Your task to perform on an android device: change timer sound Image 0: 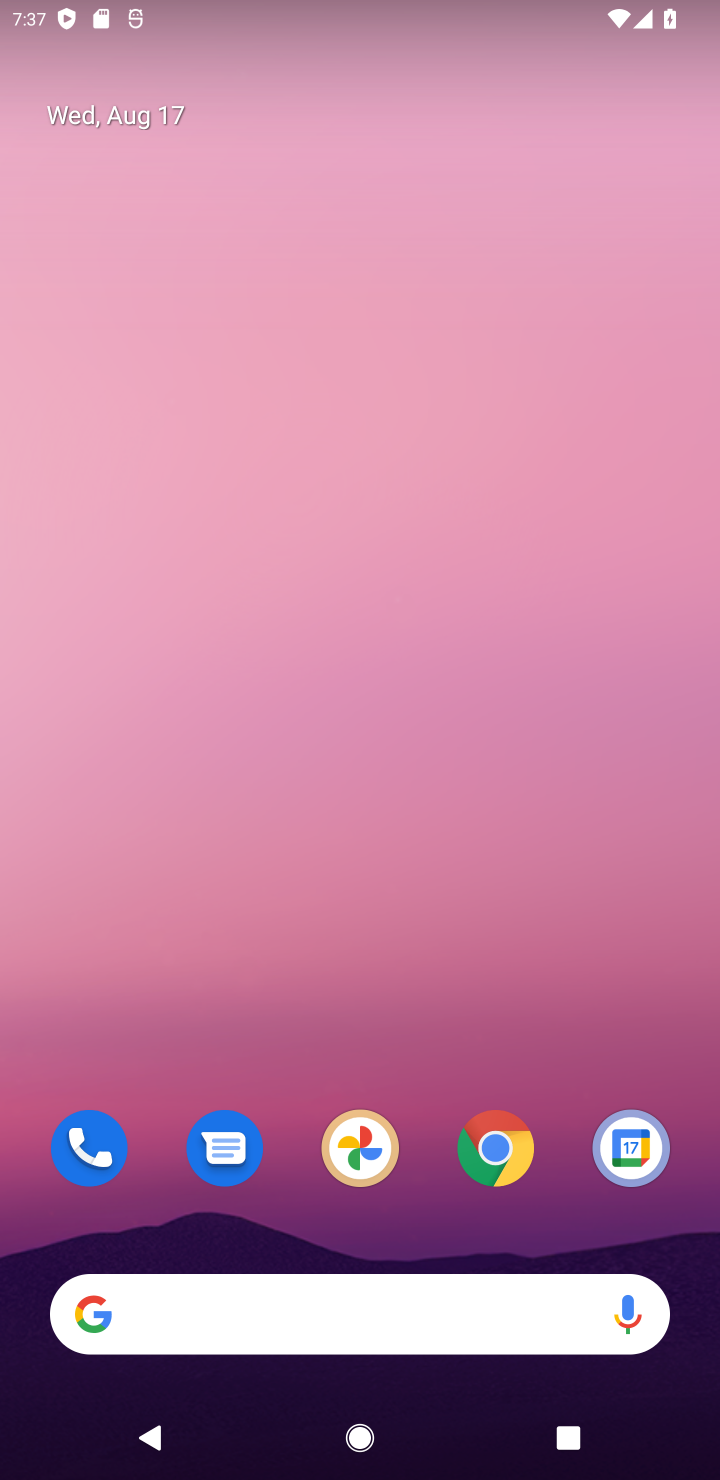
Step 0: drag from (350, 766) to (398, 145)
Your task to perform on an android device: change timer sound Image 1: 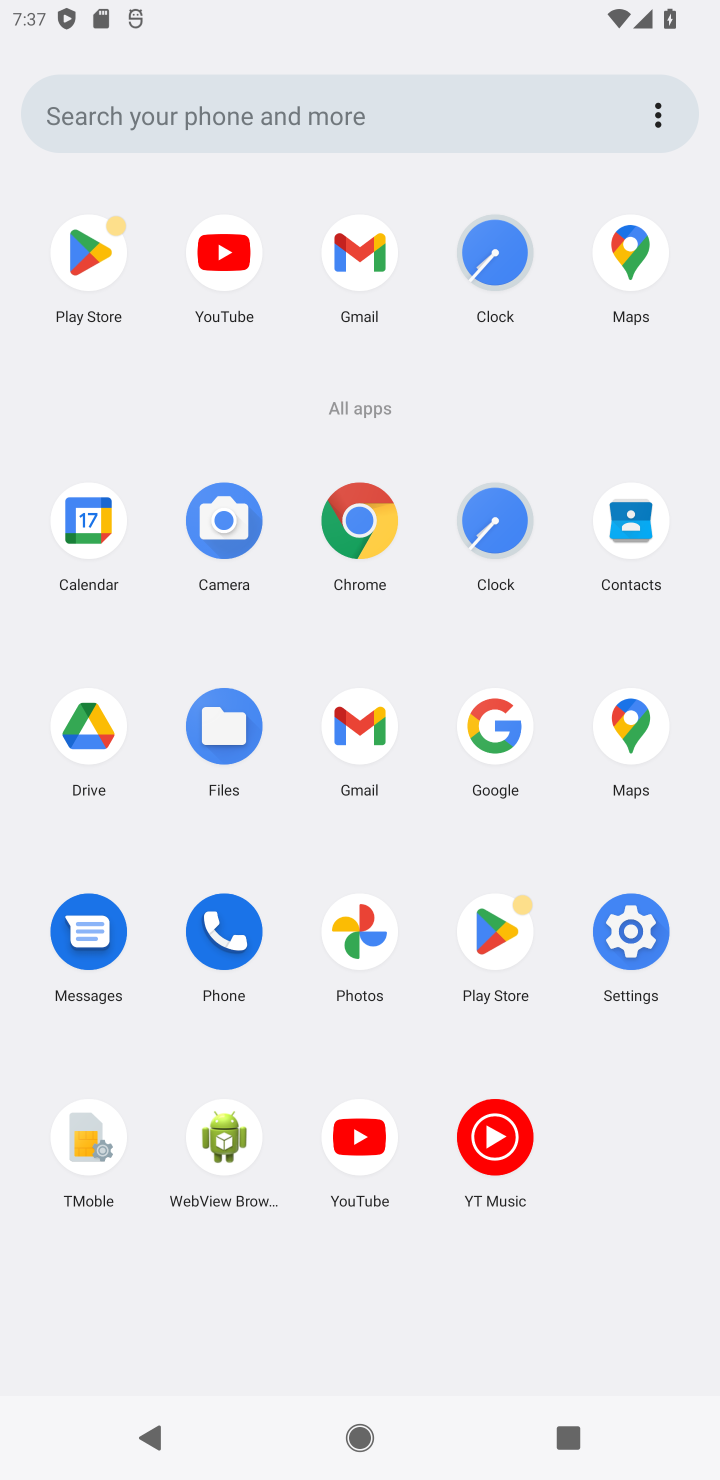
Step 1: click (494, 256)
Your task to perform on an android device: change timer sound Image 2: 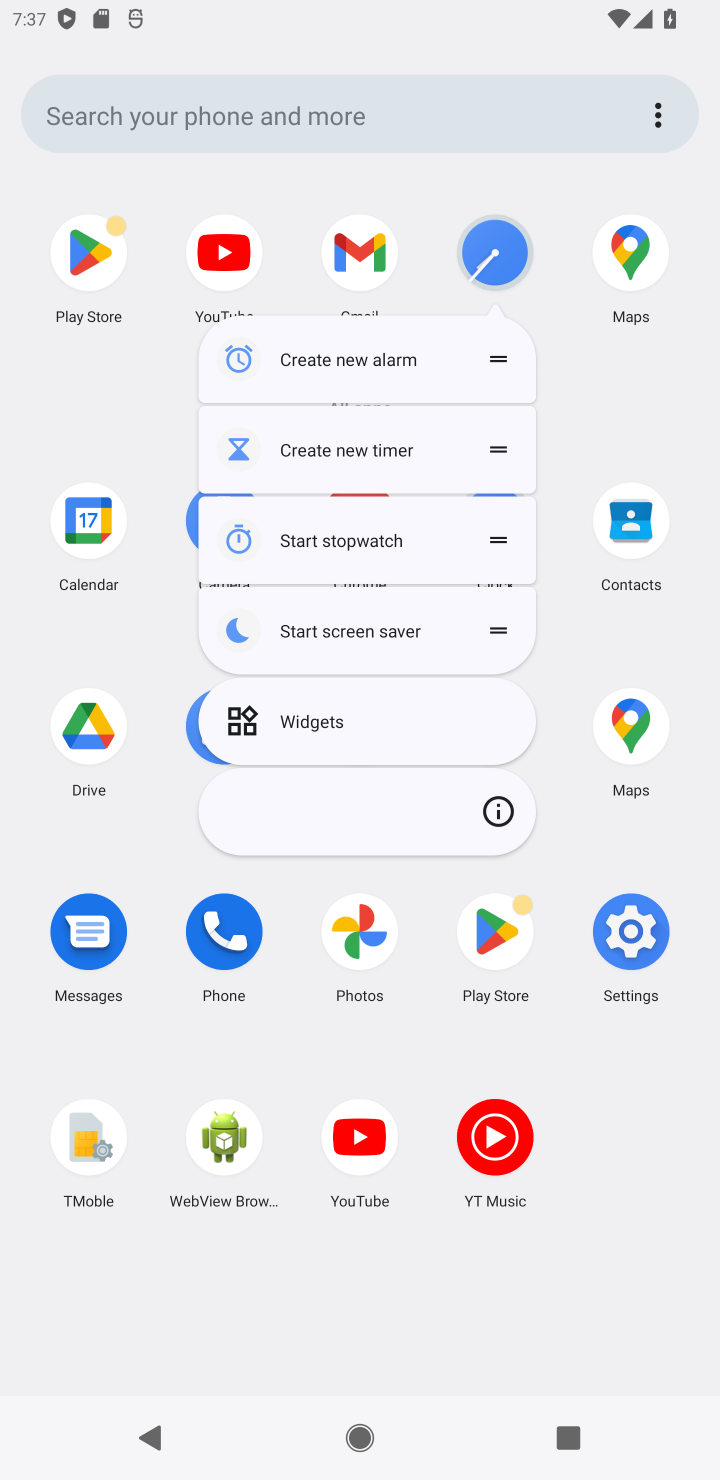
Step 2: click (497, 254)
Your task to perform on an android device: change timer sound Image 3: 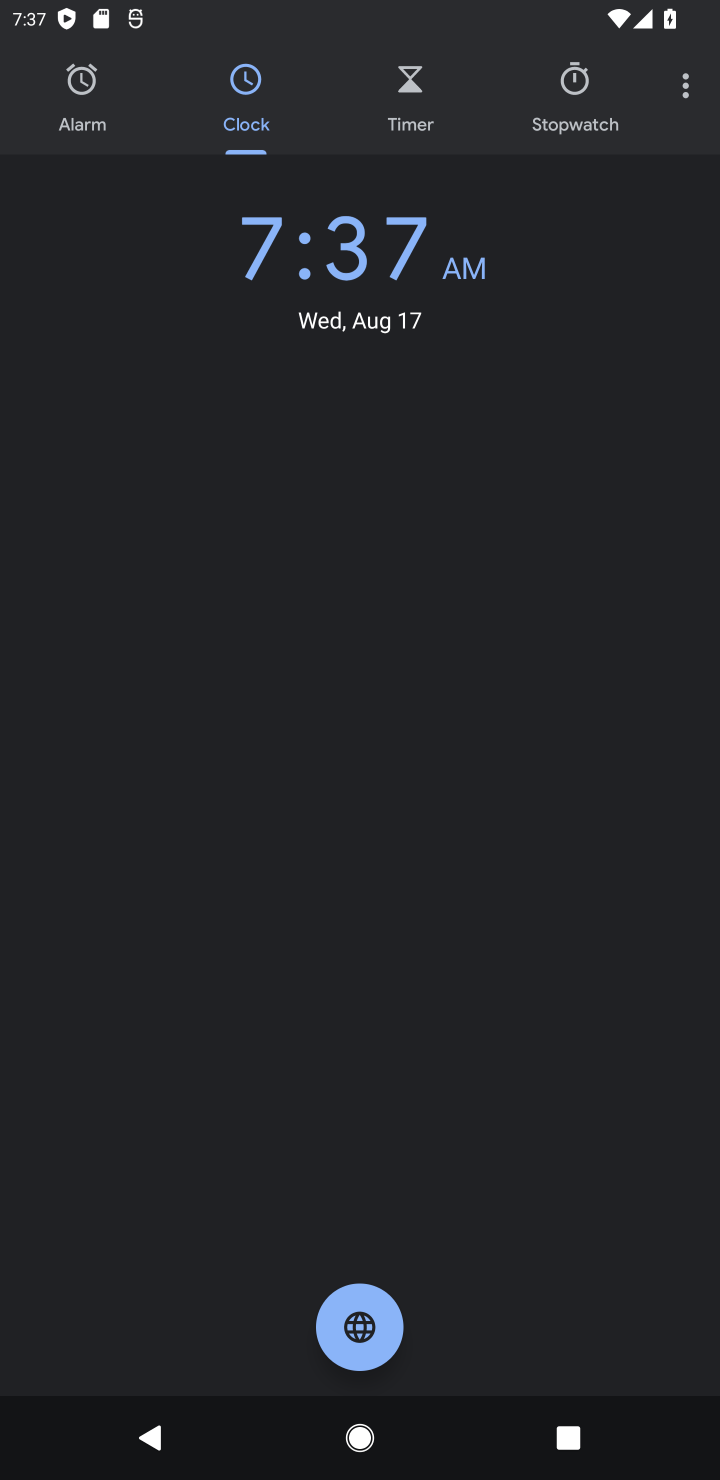
Step 3: click (668, 104)
Your task to perform on an android device: change timer sound Image 4: 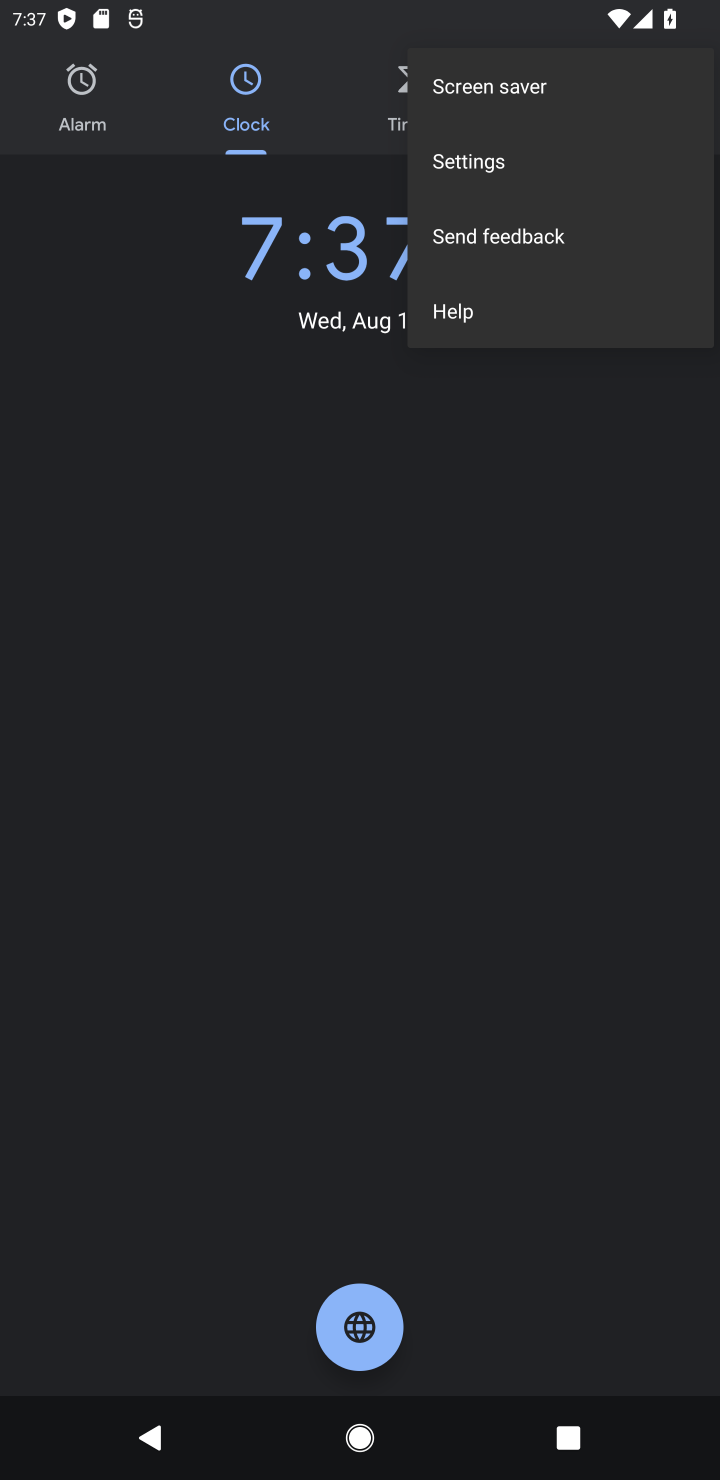
Step 4: click (455, 162)
Your task to perform on an android device: change timer sound Image 5: 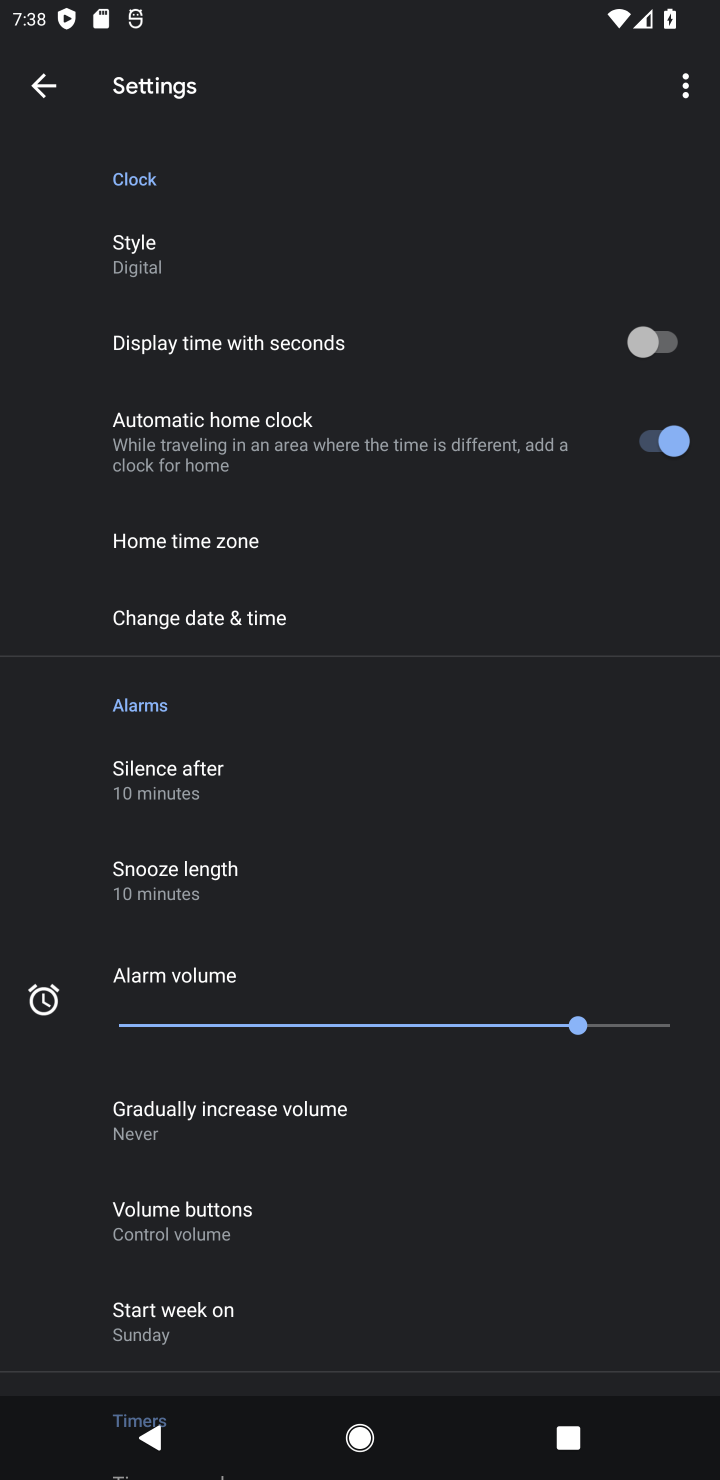
Step 5: drag from (192, 1256) to (188, 601)
Your task to perform on an android device: change timer sound Image 6: 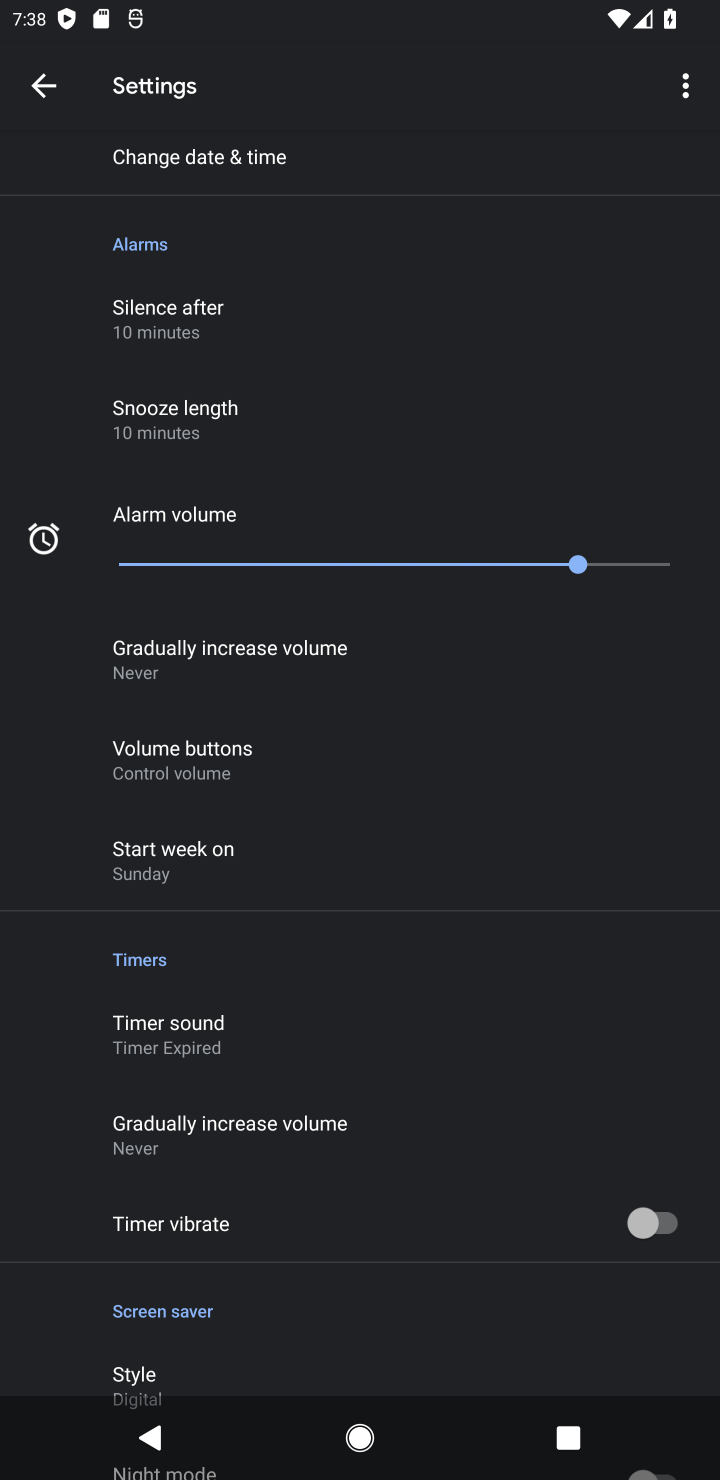
Step 6: drag from (188, 1383) to (184, 729)
Your task to perform on an android device: change timer sound Image 7: 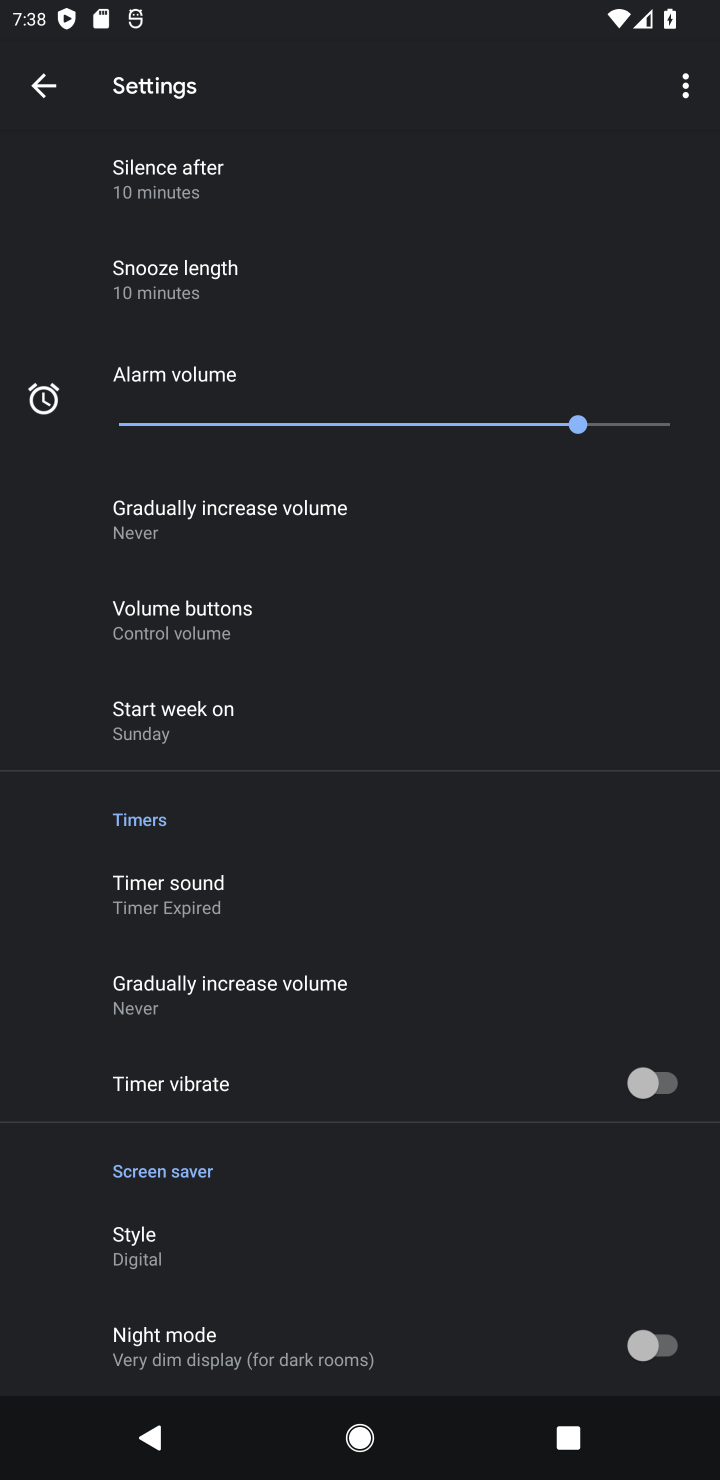
Step 7: click (179, 895)
Your task to perform on an android device: change timer sound Image 8: 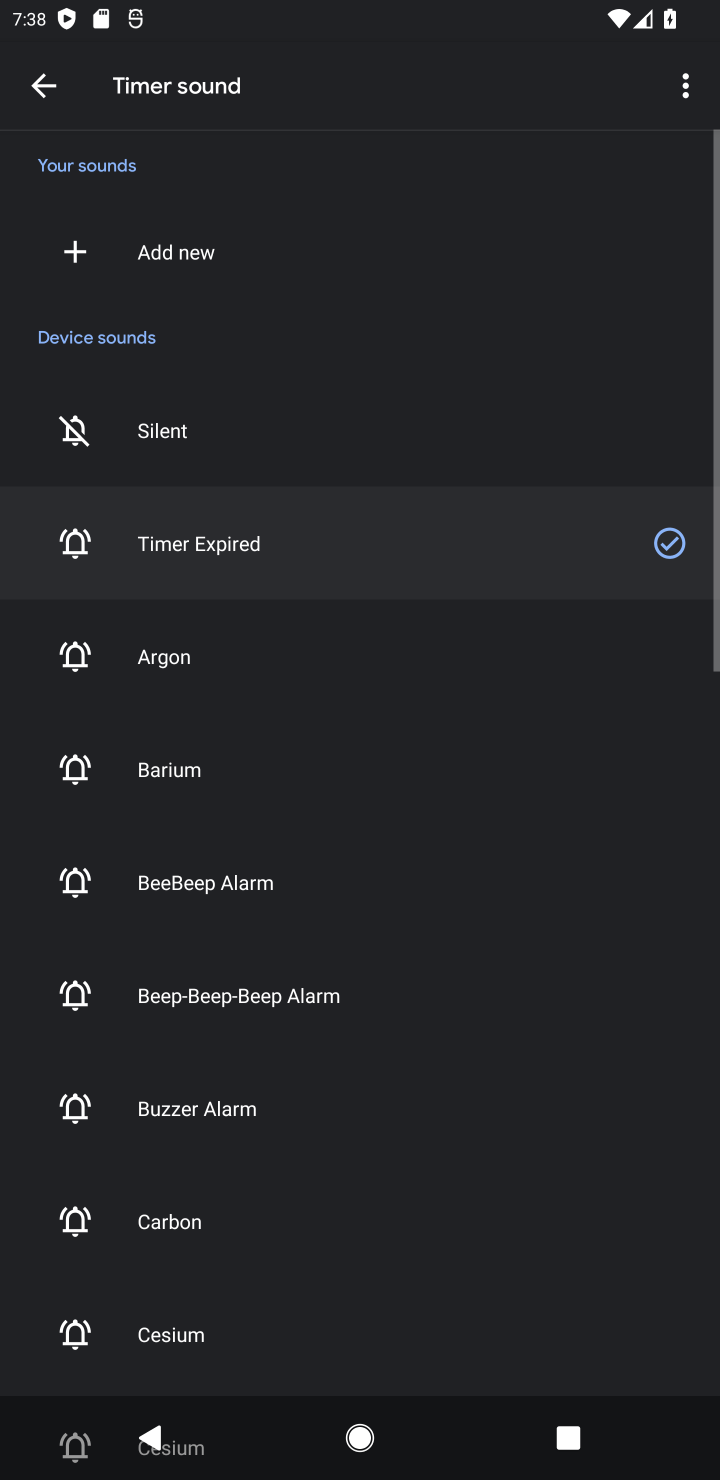
Step 8: click (144, 667)
Your task to perform on an android device: change timer sound Image 9: 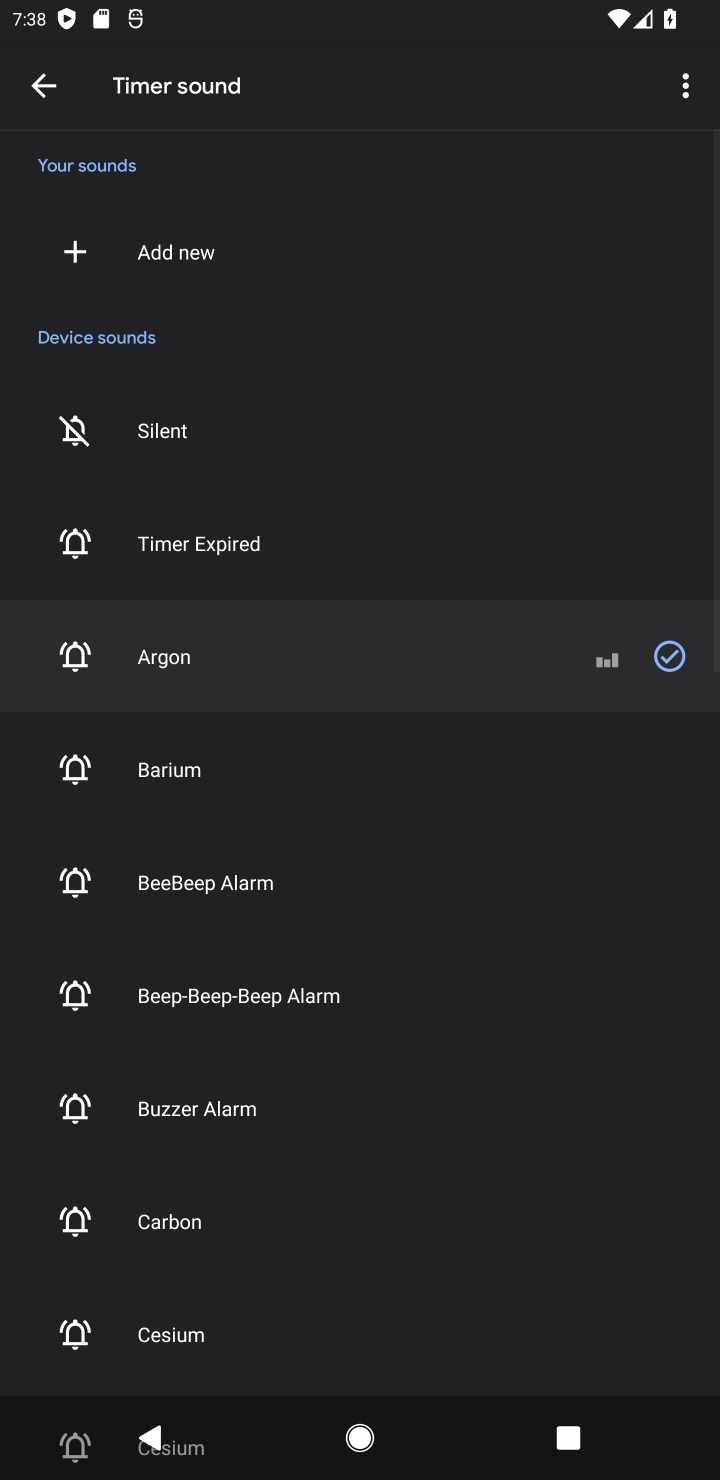
Step 9: task complete